Your task to perform on an android device: turn off smart reply in the gmail app Image 0: 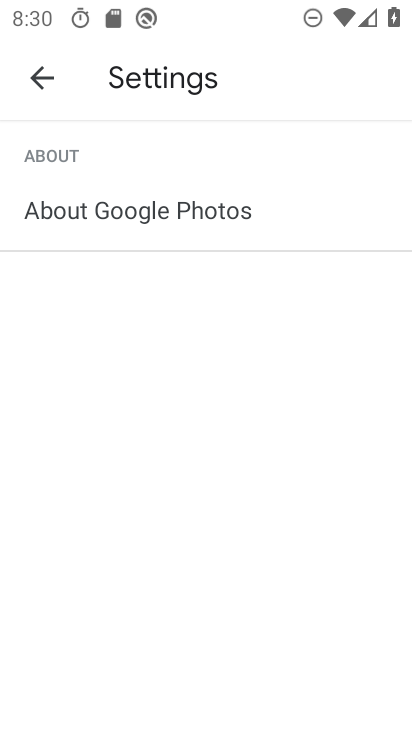
Step 0: press home button
Your task to perform on an android device: turn off smart reply in the gmail app Image 1: 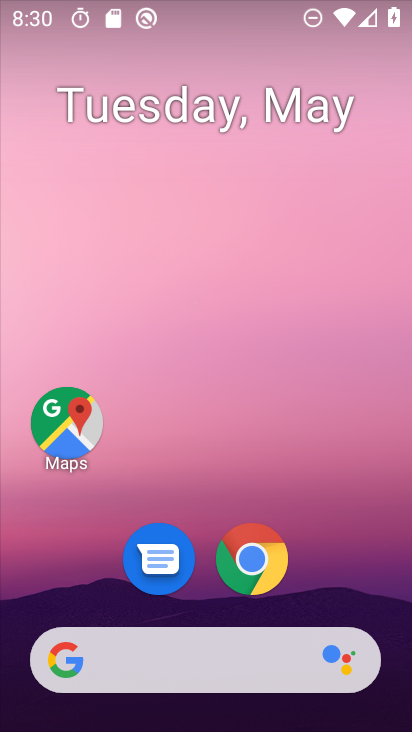
Step 1: drag from (395, 646) to (298, 76)
Your task to perform on an android device: turn off smart reply in the gmail app Image 2: 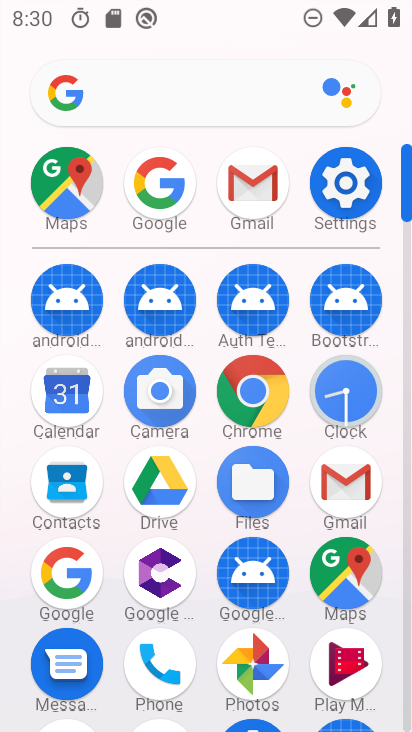
Step 2: click (366, 488)
Your task to perform on an android device: turn off smart reply in the gmail app Image 3: 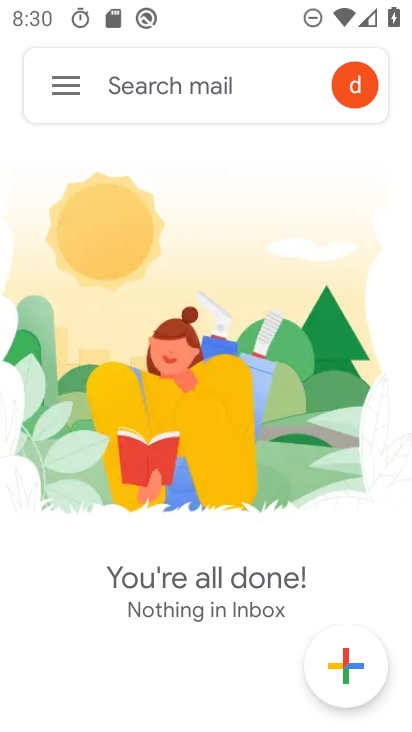
Step 3: click (60, 89)
Your task to perform on an android device: turn off smart reply in the gmail app Image 4: 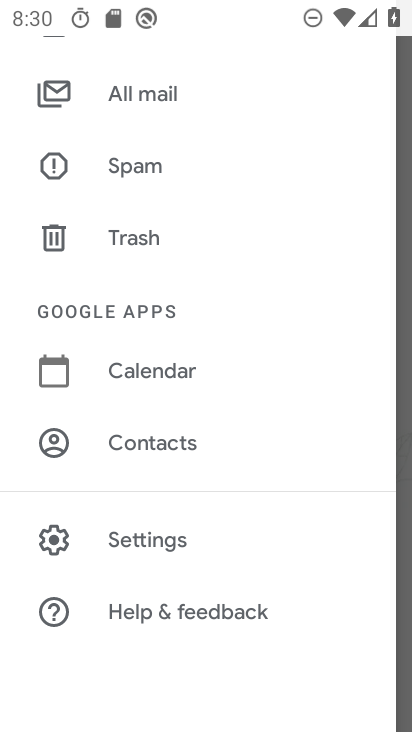
Step 4: click (202, 537)
Your task to perform on an android device: turn off smart reply in the gmail app Image 5: 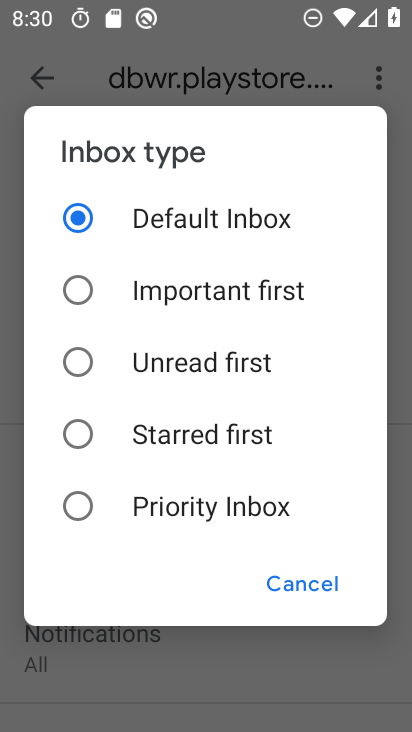
Step 5: click (311, 582)
Your task to perform on an android device: turn off smart reply in the gmail app Image 6: 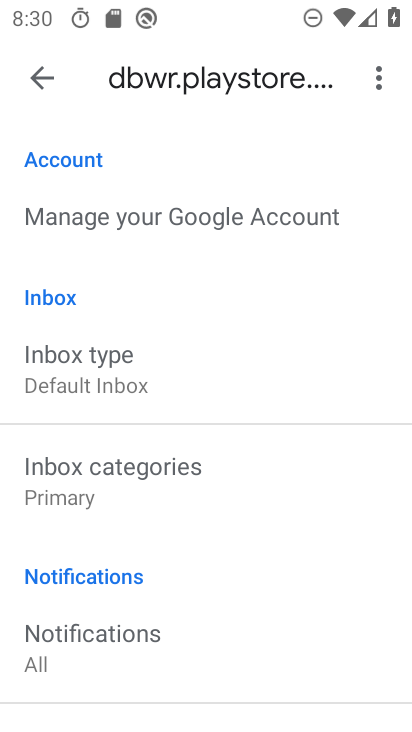
Step 6: click (229, 645)
Your task to perform on an android device: turn off smart reply in the gmail app Image 7: 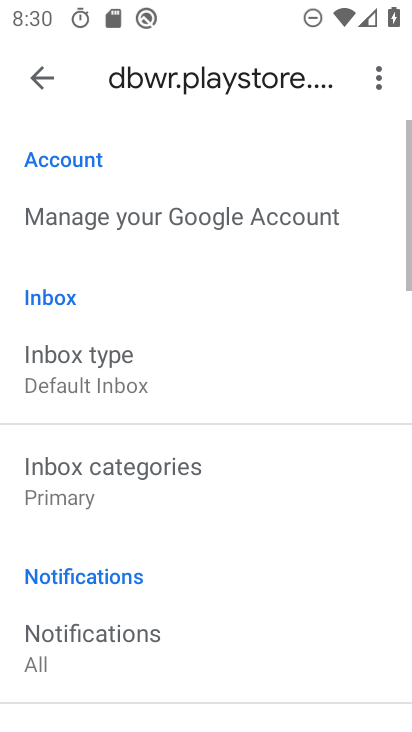
Step 7: drag from (270, 290) to (203, 35)
Your task to perform on an android device: turn off smart reply in the gmail app Image 8: 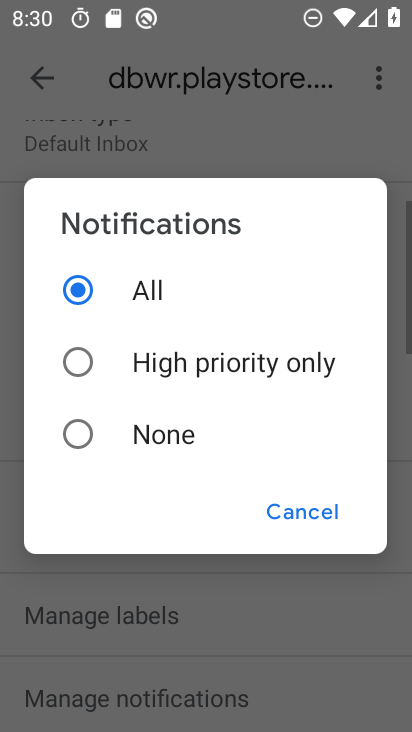
Step 8: click (318, 498)
Your task to perform on an android device: turn off smart reply in the gmail app Image 9: 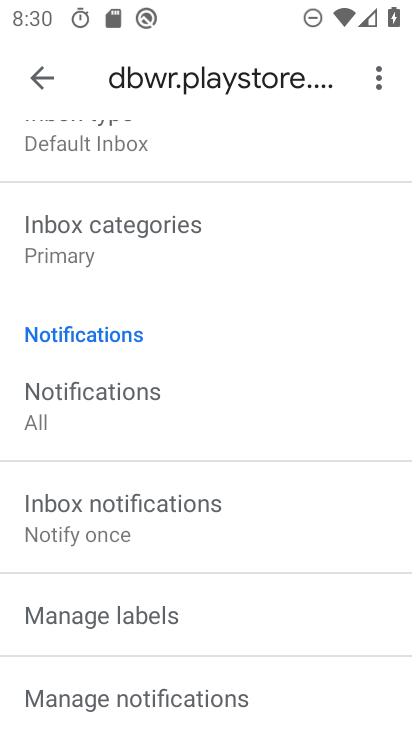
Step 9: drag from (196, 679) to (186, 51)
Your task to perform on an android device: turn off smart reply in the gmail app Image 10: 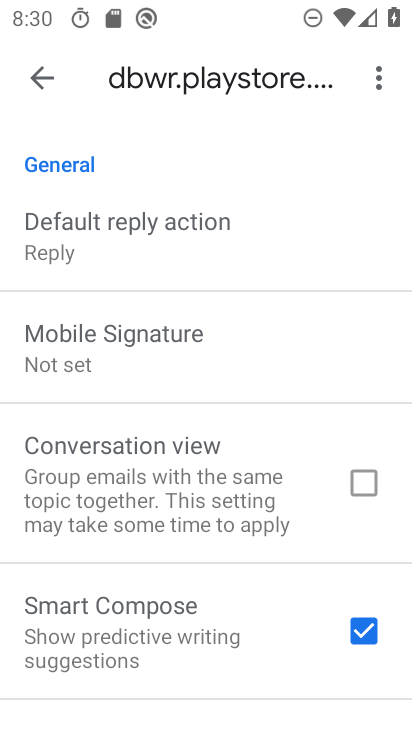
Step 10: drag from (250, 629) to (273, 236)
Your task to perform on an android device: turn off smart reply in the gmail app Image 11: 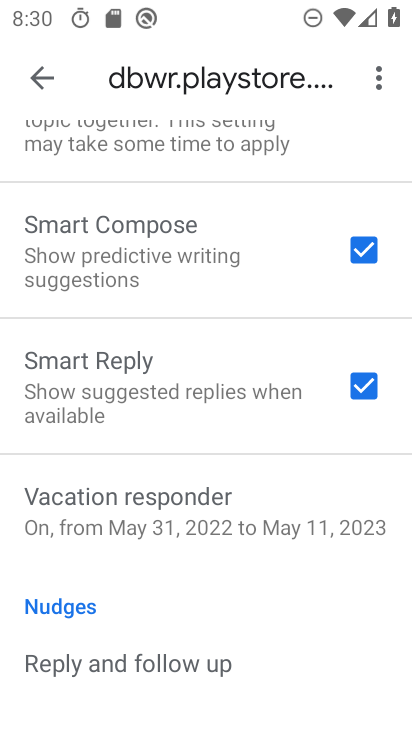
Step 11: click (270, 378)
Your task to perform on an android device: turn off smart reply in the gmail app Image 12: 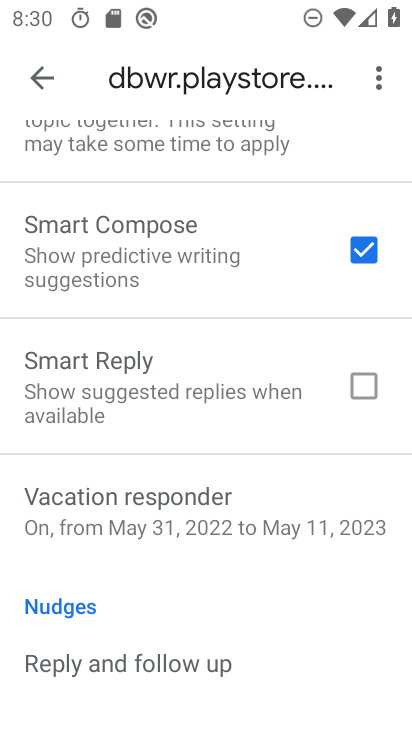
Step 12: task complete